Your task to perform on an android device: Open the Play Movies app and select the watchlist tab. Image 0: 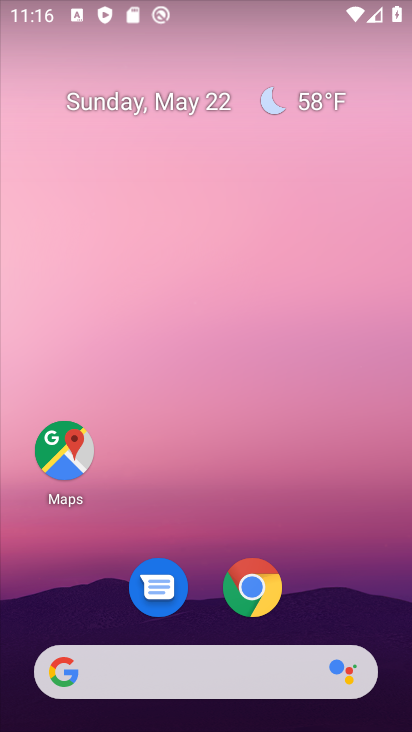
Step 0: drag from (316, 581) to (310, 100)
Your task to perform on an android device: Open the Play Movies app and select the watchlist tab. Image 1: 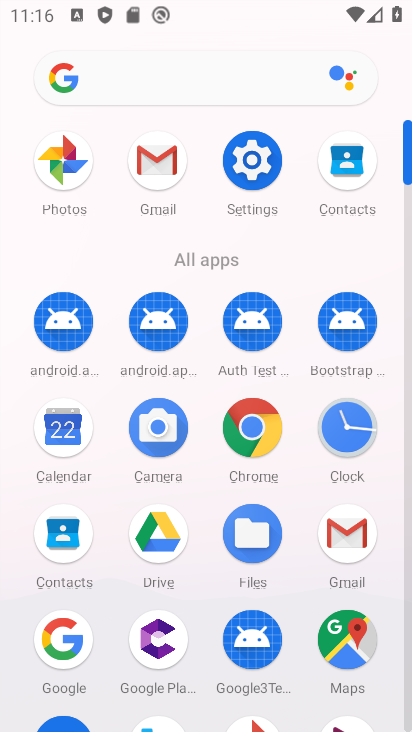
Step 1: drag from (117, 370) to (122, 215)
Your task to perform on an android device: Open the Play Movies app and select the watchlist tab. Image 2: 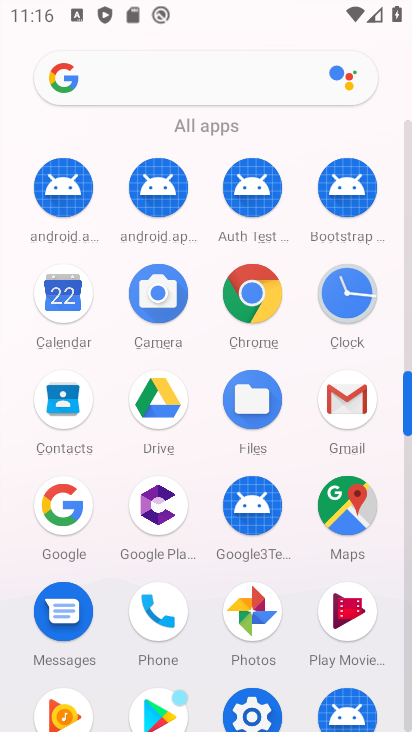
Step 2: click (358, 604)
Your task to perform on an android device: Open the Play Movies app and select the watchlist tab. Image 3: 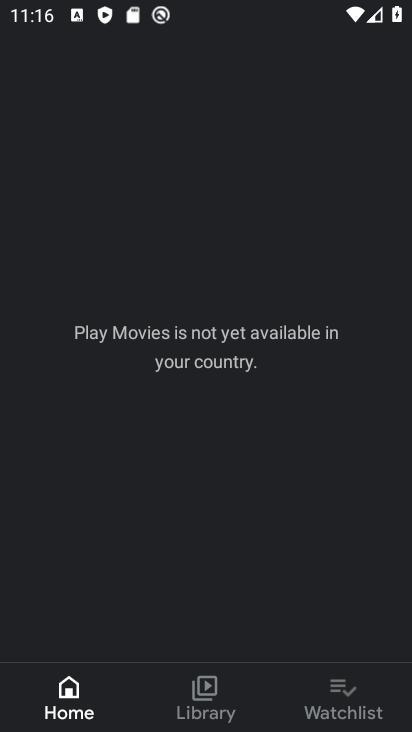
Step 3: click (344, 688)
Your task to perform on an android device: Open the Play Movies app and select the watchlist tab. Image 4: 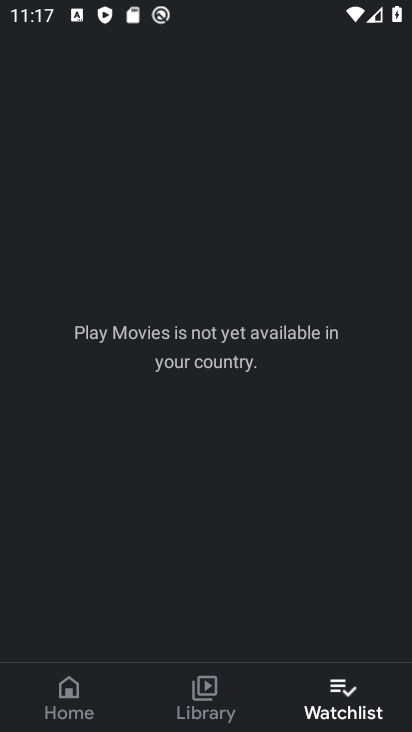
Step 4: task complete